Your task to perform on an android device: toggle notification dots Image 0: 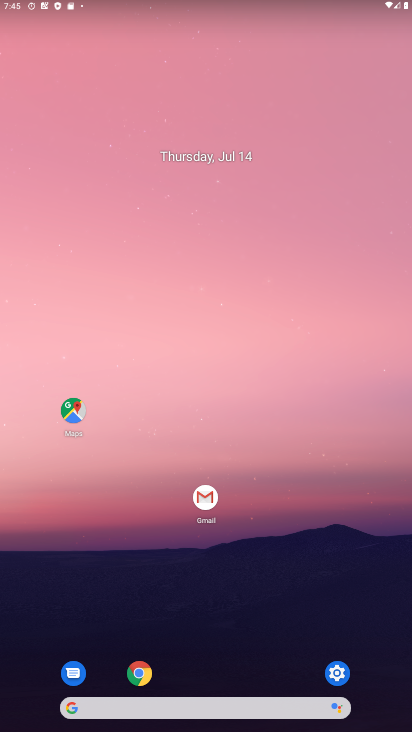
Step 0: click (335, 678)
Your task to perform on an android device: toggle notification dots Image 1: 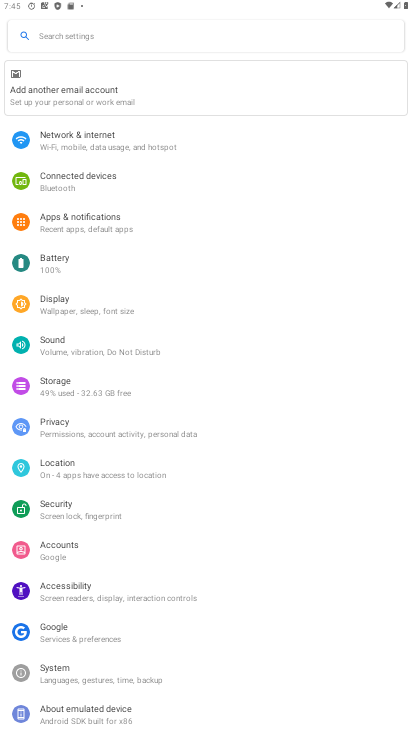
Step 1: click (109, 37)
Your task to perform on an android device: toggle notification dots Image 2: 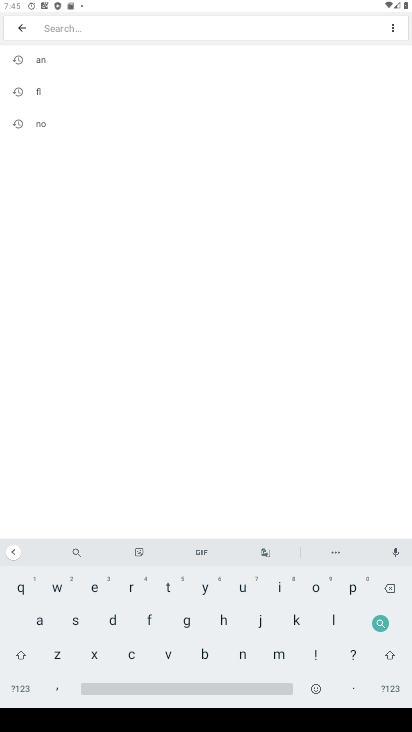
Step 2: click (239, 653)
Your task to perform on an android device: toggle notification dots Image 3: 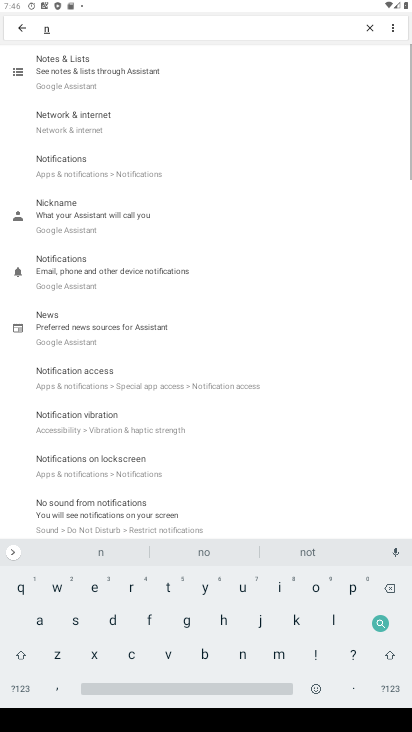
Step 3: click (311, 589)
Your task to perform on an android device: toggle notification dots Image 4: 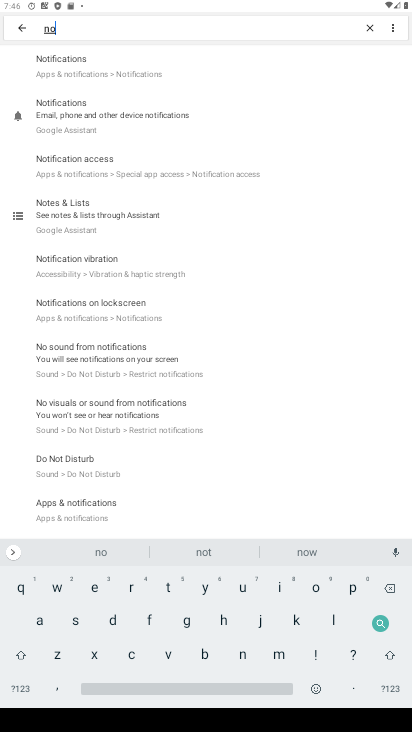
Step 4: click (75, 71)
Your task to perform on an android device: toggle notification dots Image 5: 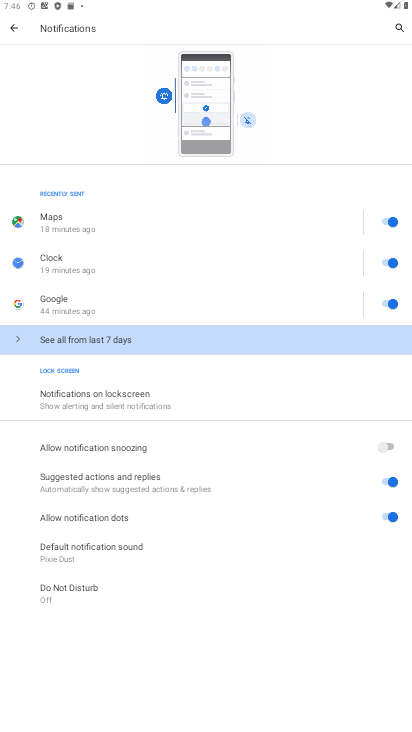
Step 5: click (66, 401)
Your task to perform on an android device: toggle notification dots Image 6: 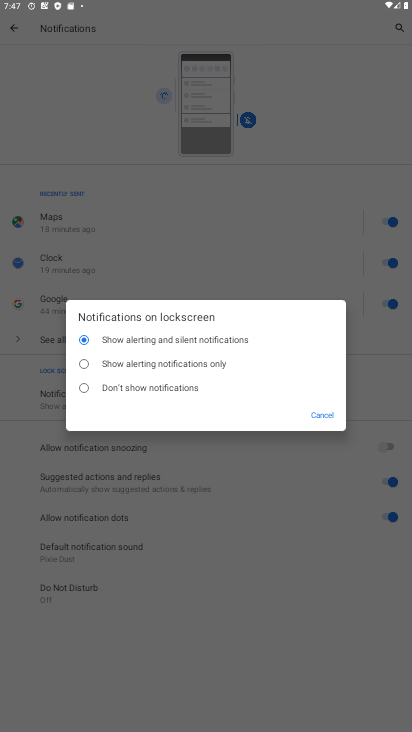
Step 6: task complete